Your task to perform on an android device: Add bose soundlink mini to the cart on amazon, then select checkout. Image 0: 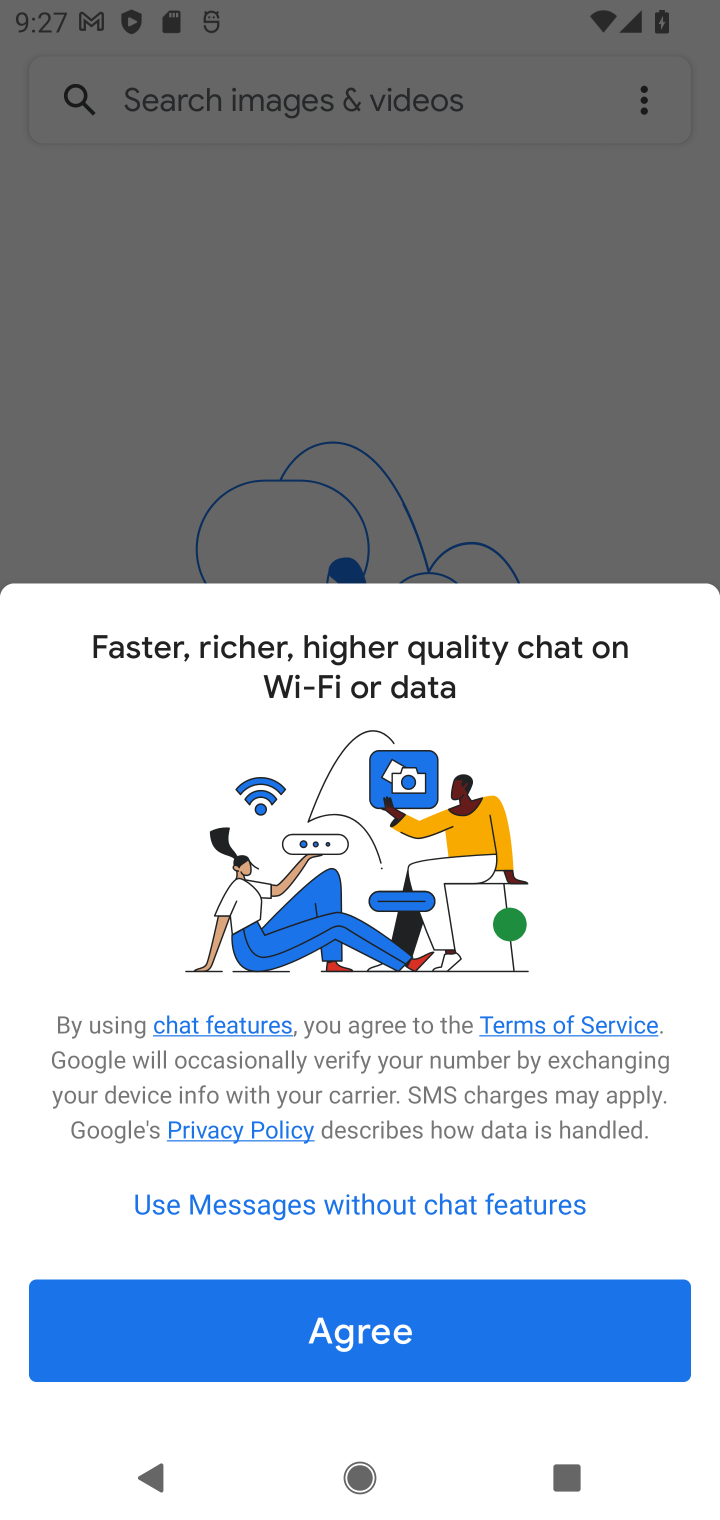
Step 0: press home button
Your task to perform on an android device: Add bose soundlink mini to the cart on amazon, then select checkout. Image 1: 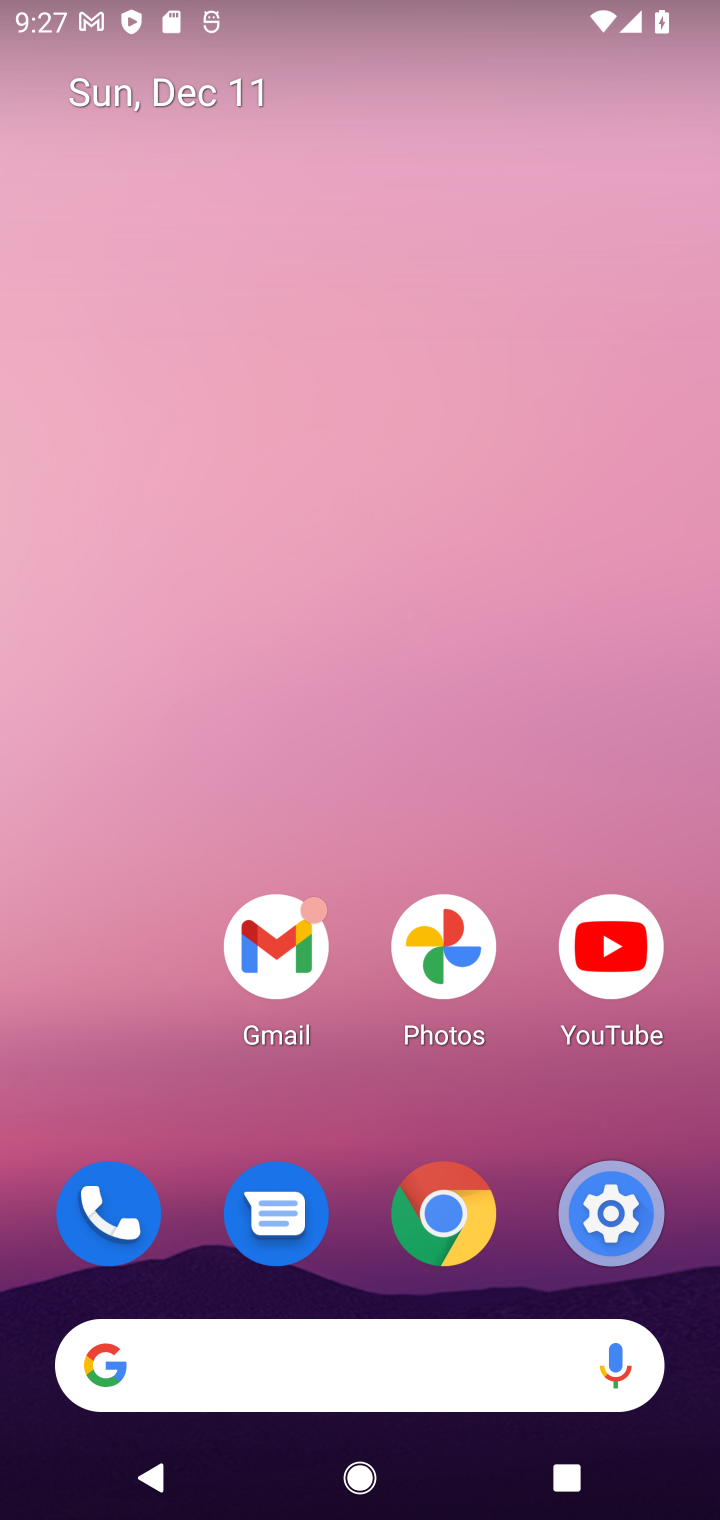
Step 1: click (323, 1363)
Your task to perform on an android device: Add bose soundlink mini to the cart on amazon, then select checkout. Image 2: 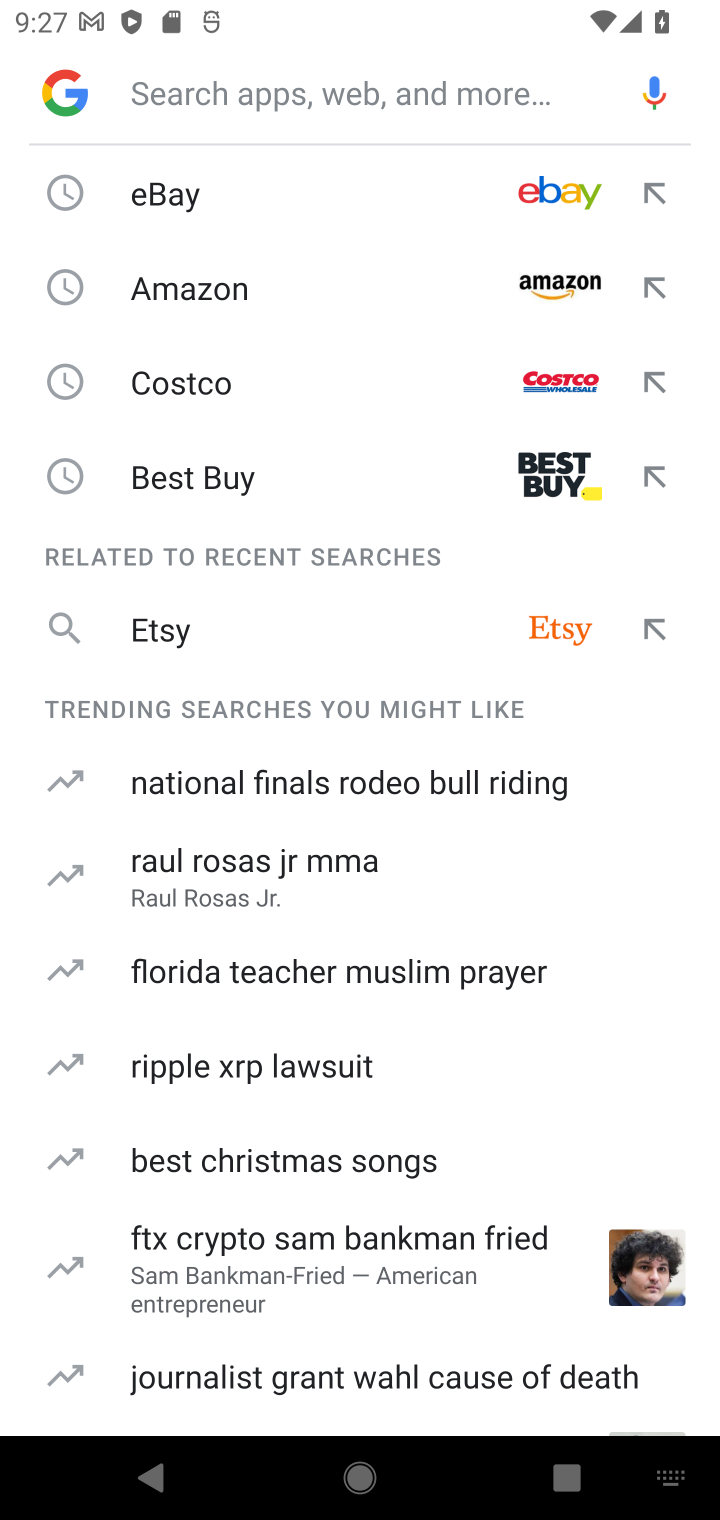
Step 2: type "amazon"
Your task to perform on an android device: Add bose soundlink mini to the cart on amazon, then select checkout. Image 3: 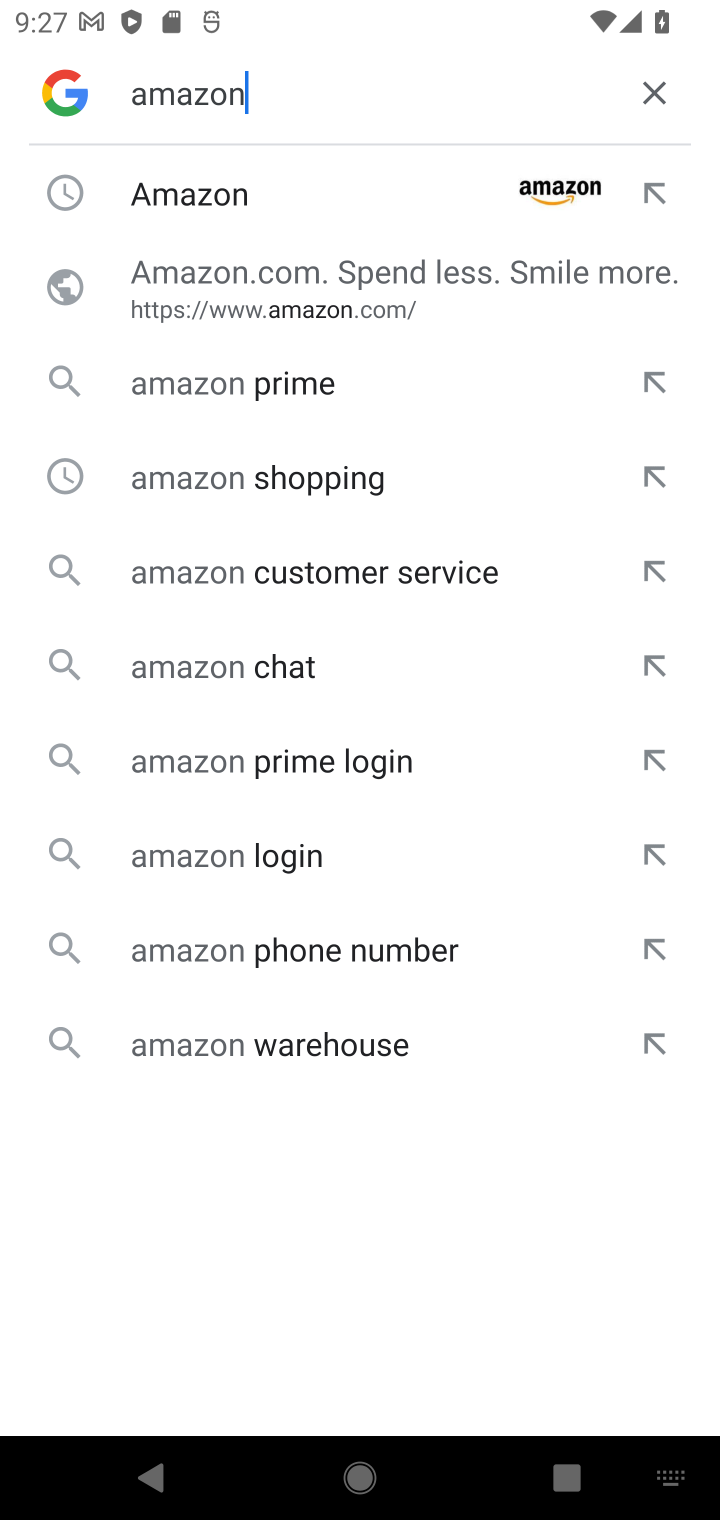
Step 3: click (169, 158)
Your task to perform on an android device: Add bose soundlink mini to the cart on amazon, then select checkout. Image 4: 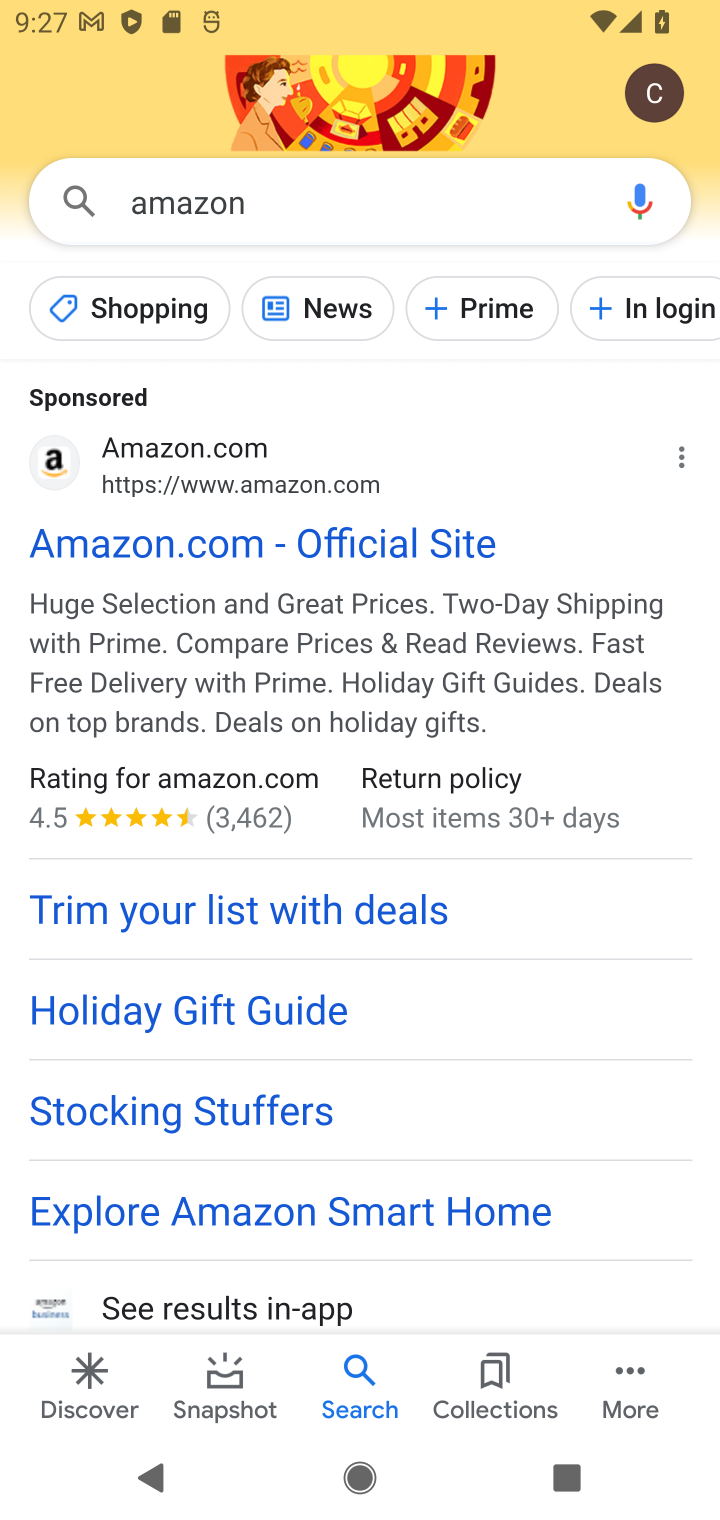
Step 4: click (281, 521)
Your task to perform on an android device: Add bose soundlink mini to the cart on amazon, then select checkout. Image 5: 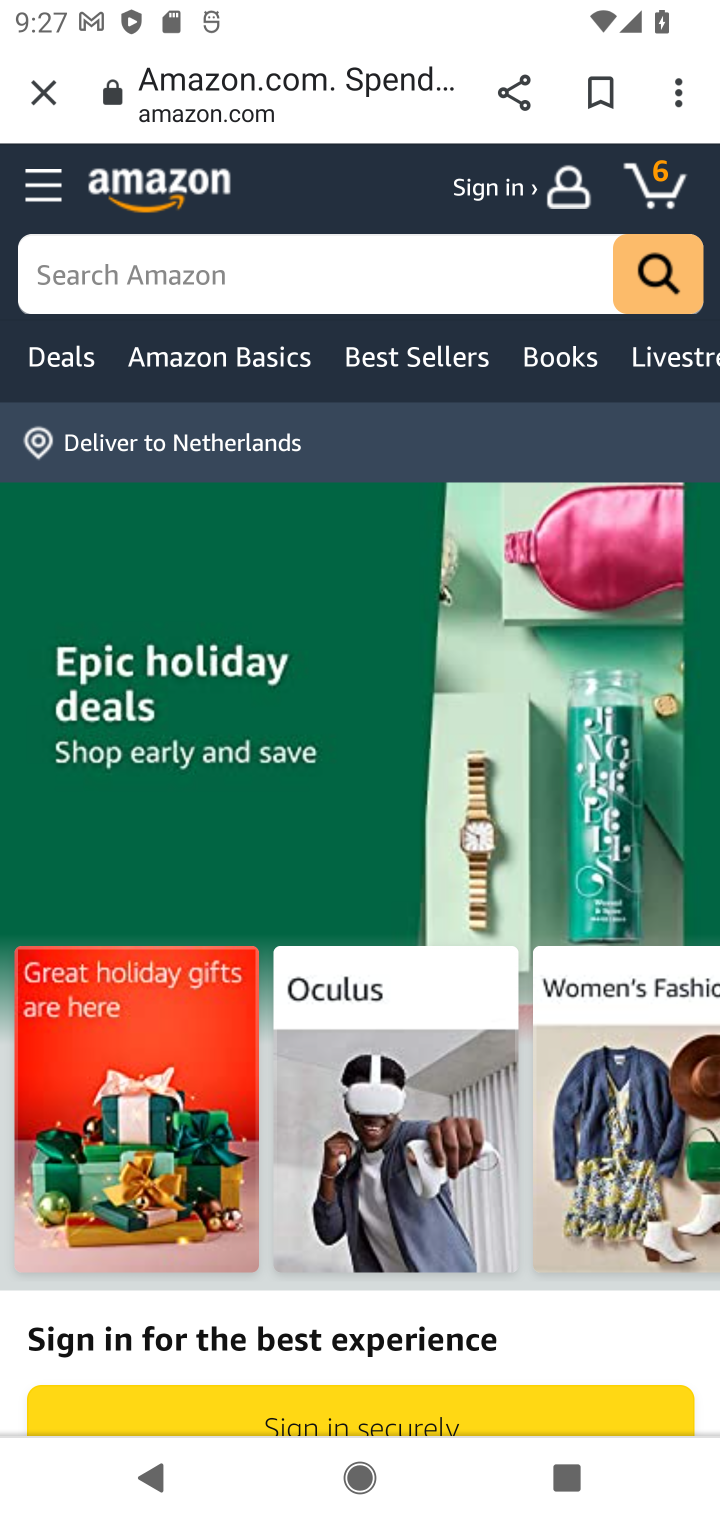
Step 5: click (309, 309)
Your task to perform on an android device: Add bose soundlink mini to the cart on amazon, then select checkout. Image 6: 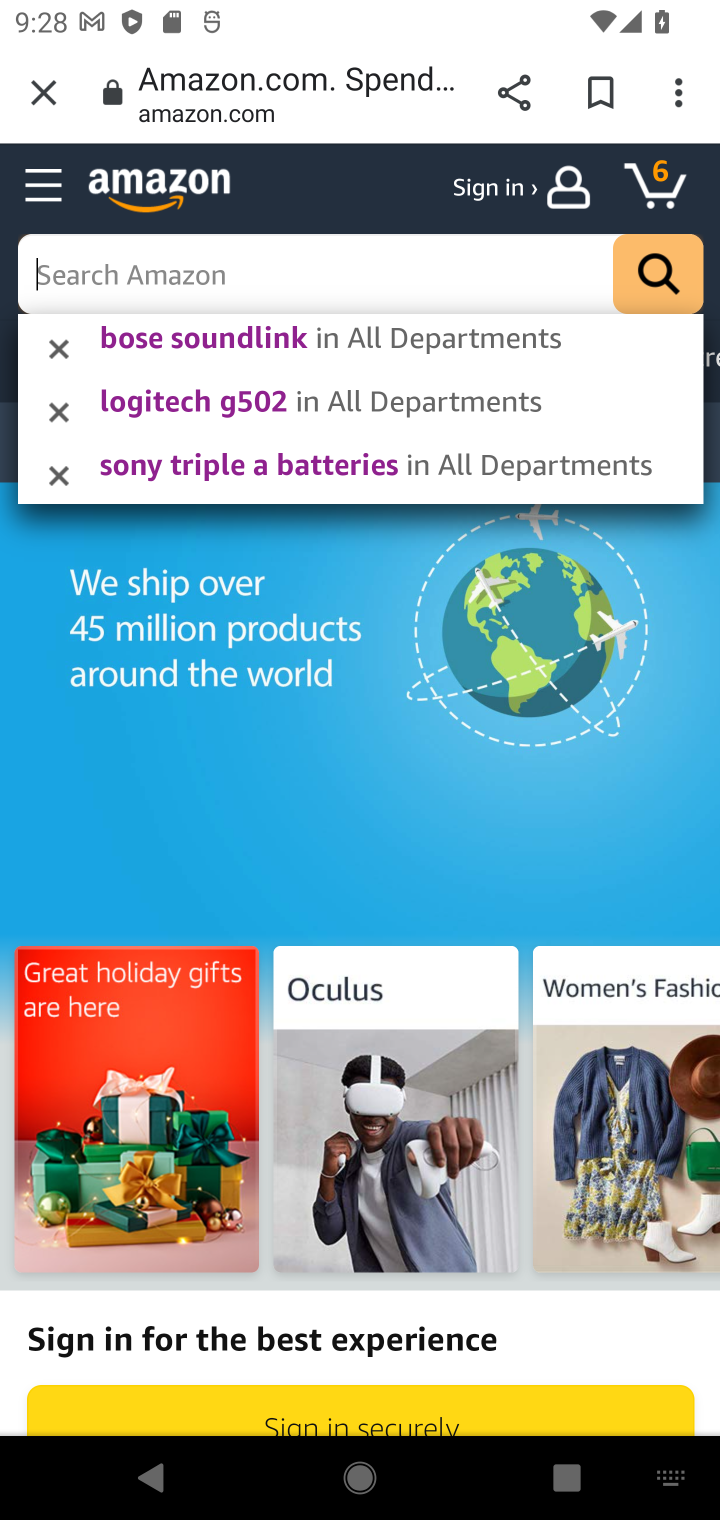
Step 6: type "bose soundlink mini"
Your task to perform on an android device: Add bose soundlink mini to the cart on amazon, then select checkout. Image 7: 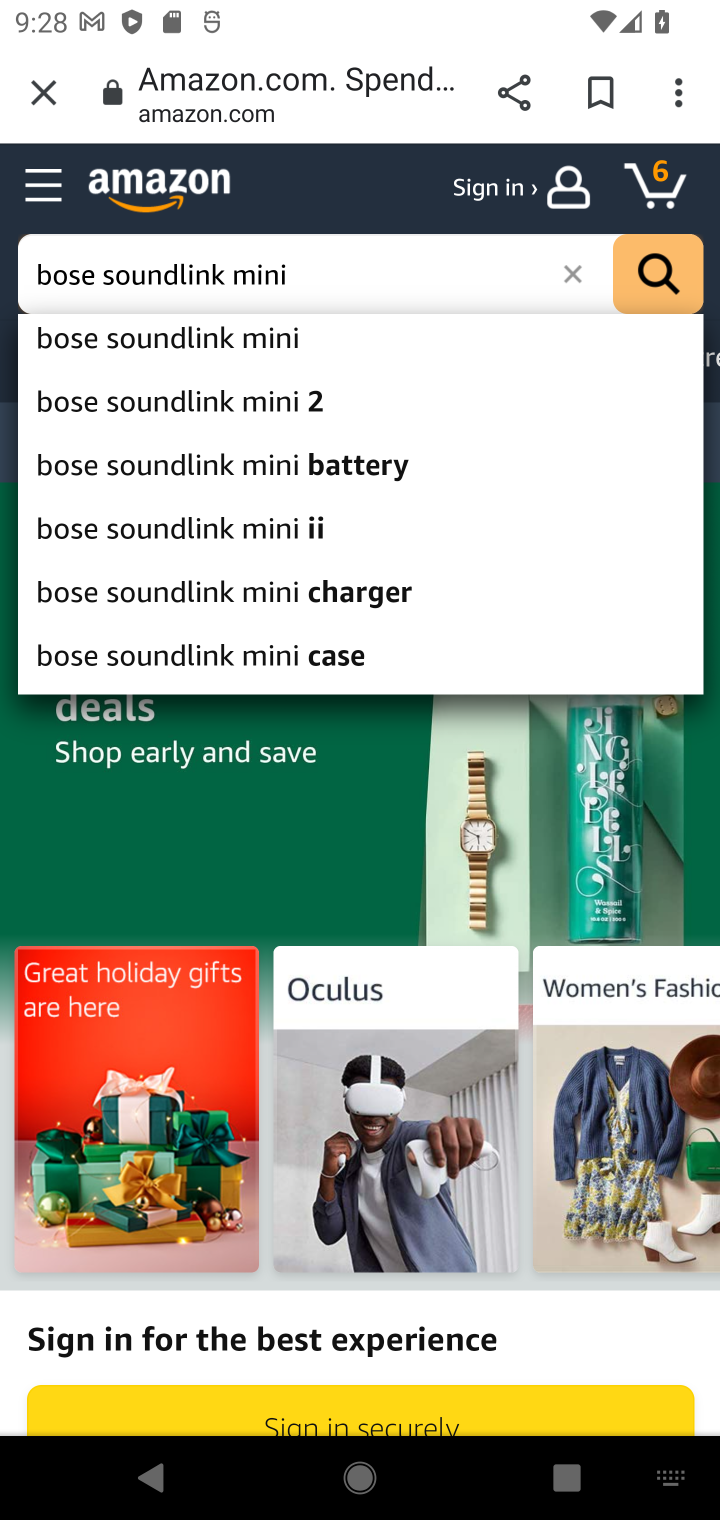
Step 7: click (645, 270)
Your task to perform on an android device: Add bose soundlink mini to the cart on amazon, then select checkout. Image 8: 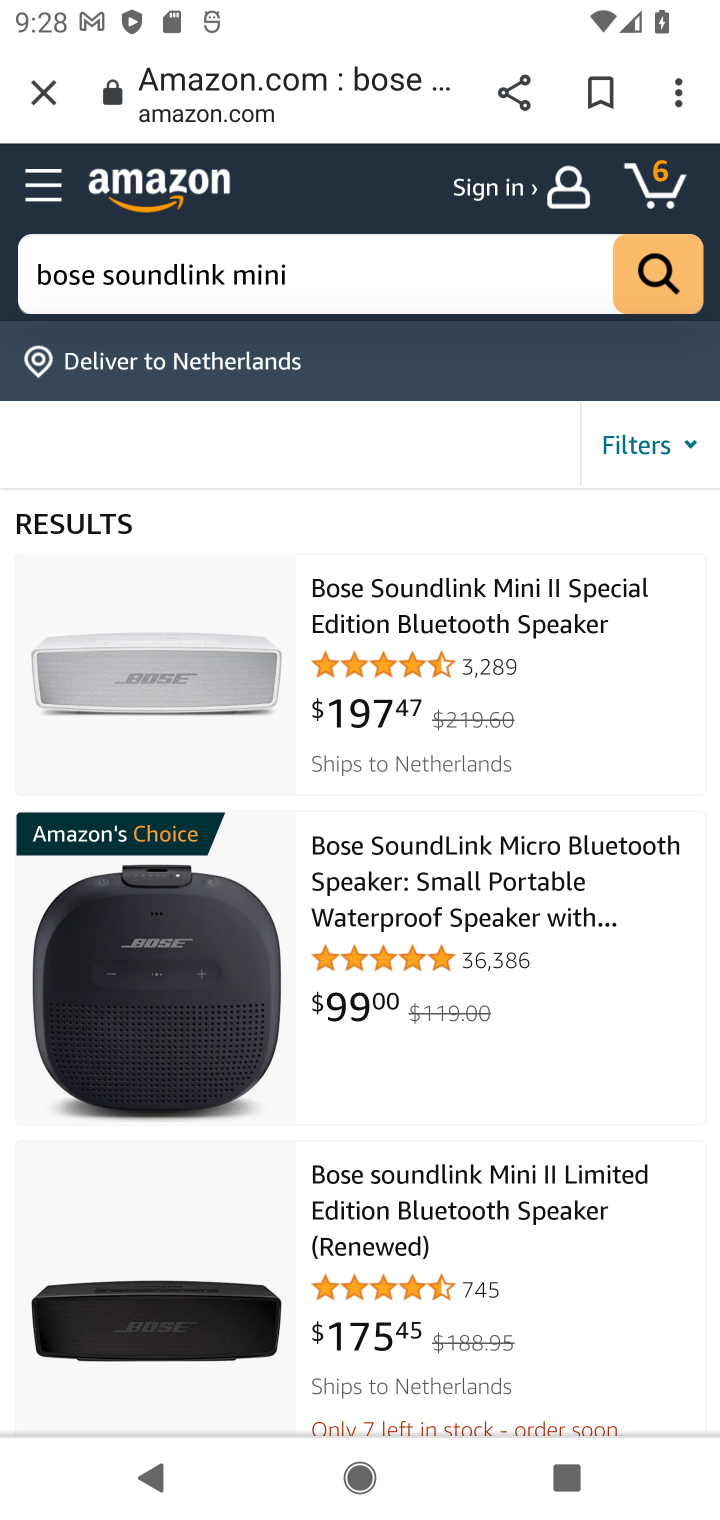
Step 8: click (522, 621)
Your task to perform on an android device: Add bose soundlink mini to the cart on amazon, then select checkout. Image 9: 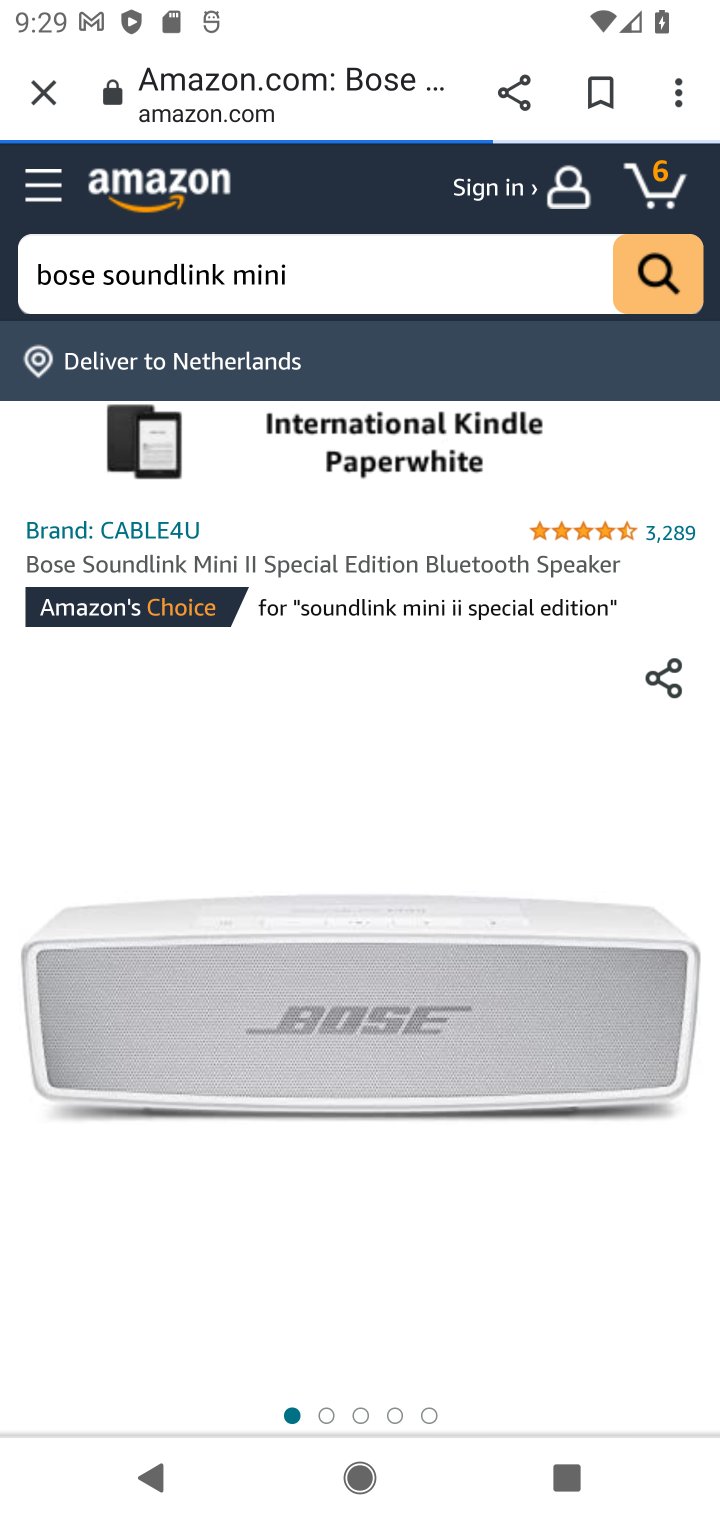
Step 9: drag from (327, 1275) to (229, 508)
Your task to perform on an android device: Add bose soundlink mini to the cart on amazon, then select checkout. Image 10: 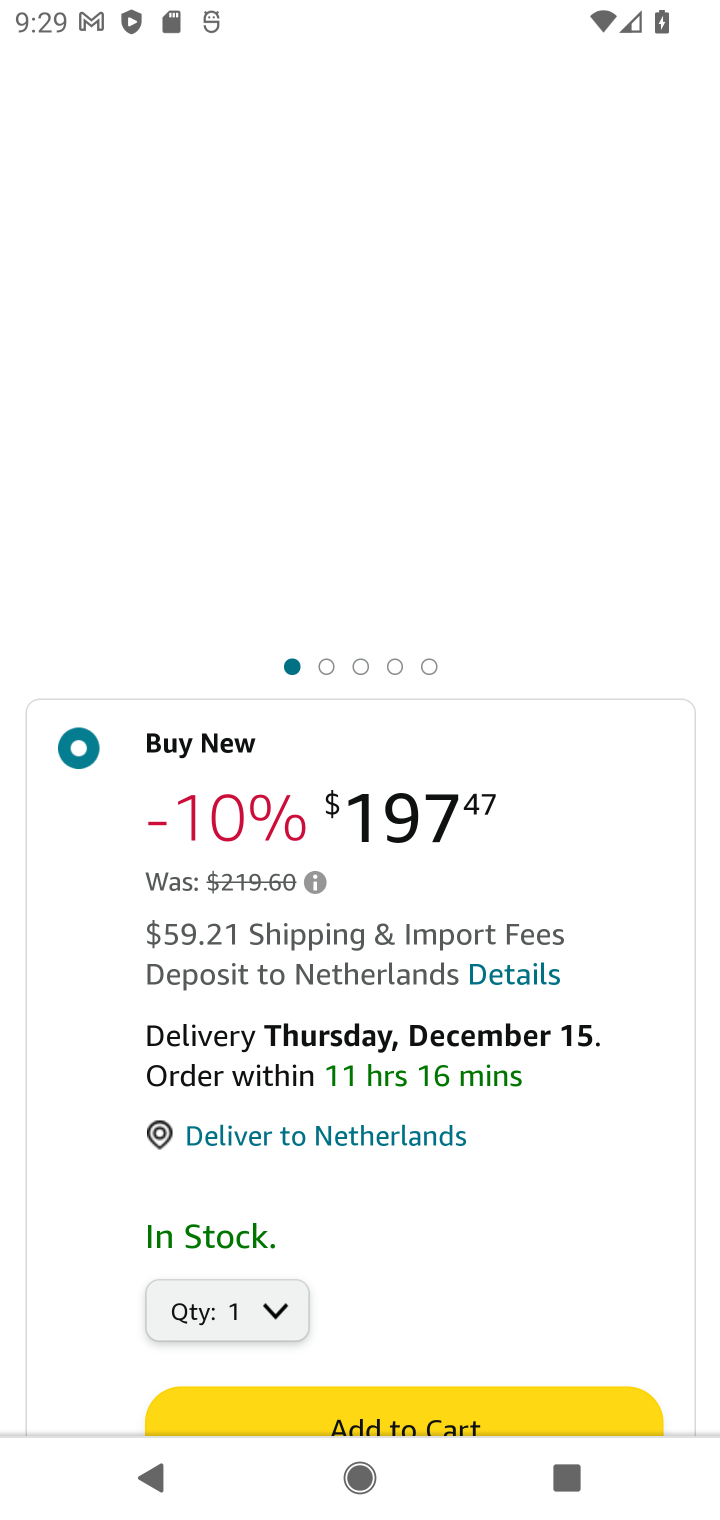
Step 10: click (425, 1402)
Your task to perform on an android device: Add bose soundlink mini to the cart on amazon, then select checkout. Image 11: 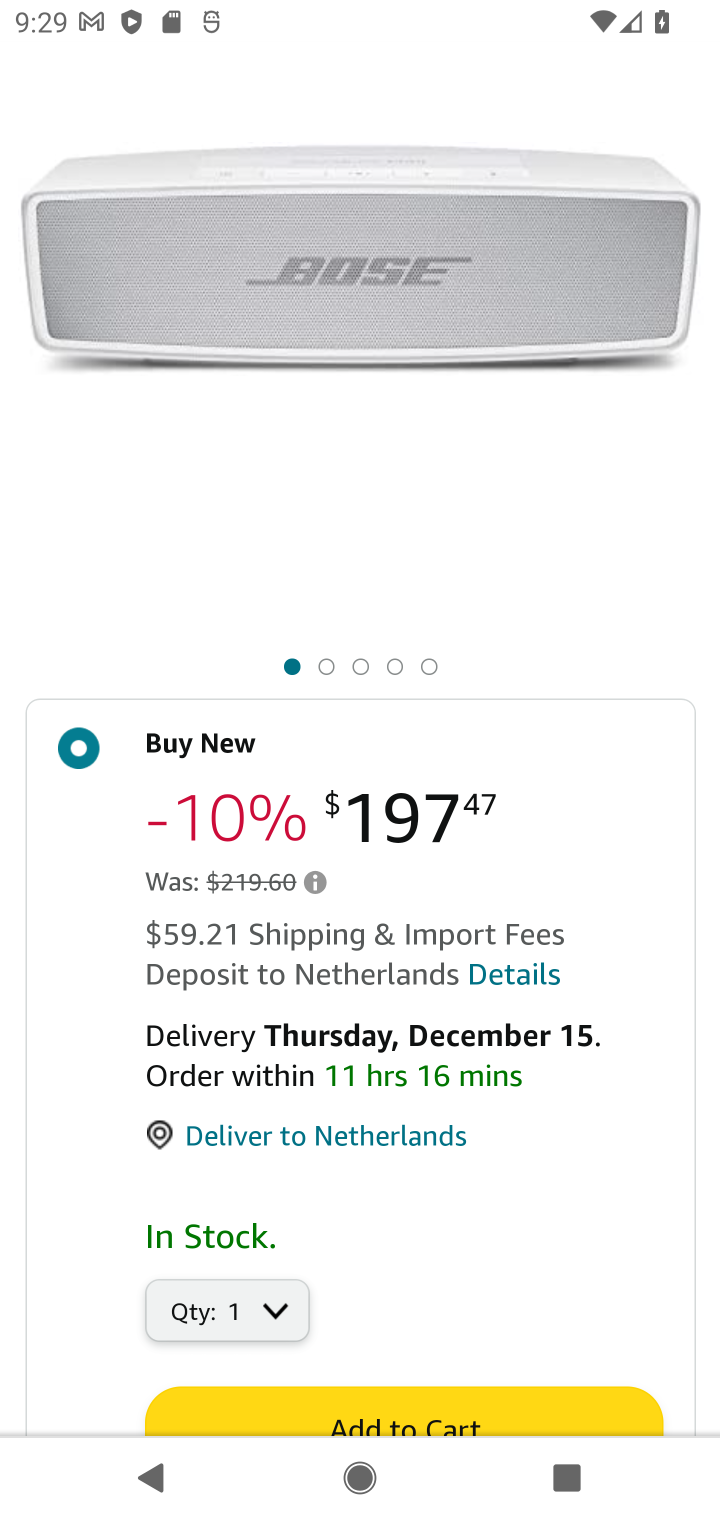
Step 11: task complete